Your task to perform on an android device: Open Wikipedia Image 0: 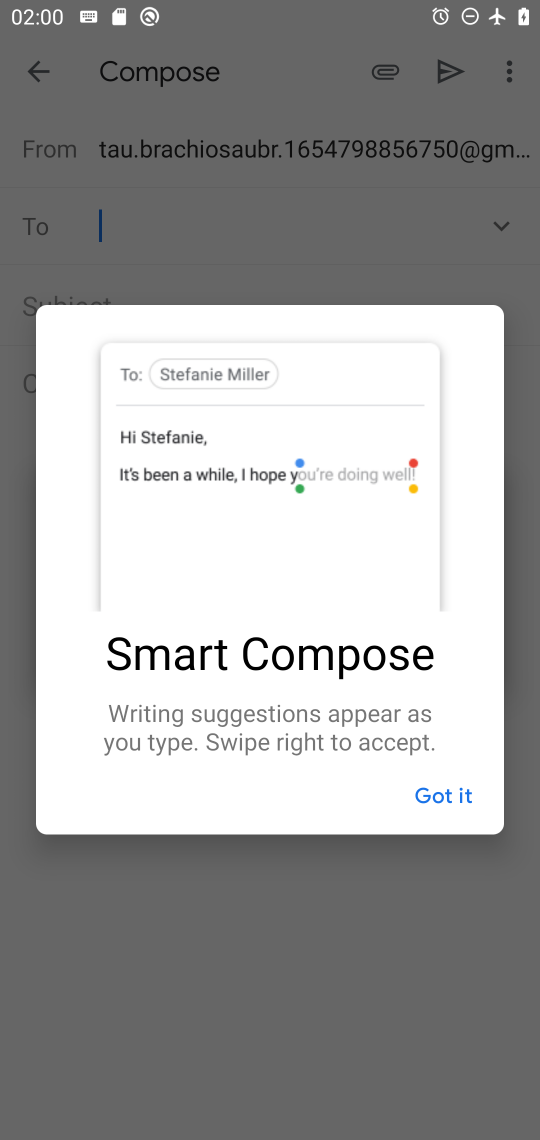
Step 0: press home button
Your task to perform on an android device: Open Wikipedia Image 1: 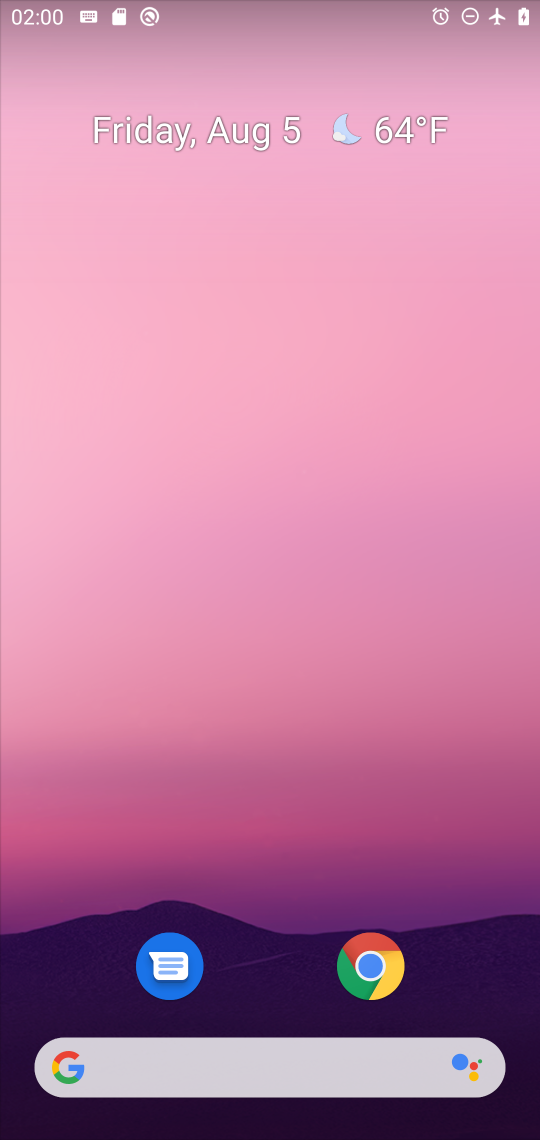
Step 1: click (379, 955)
Your task to perform on an android device: Open Wikipedia Image 2: 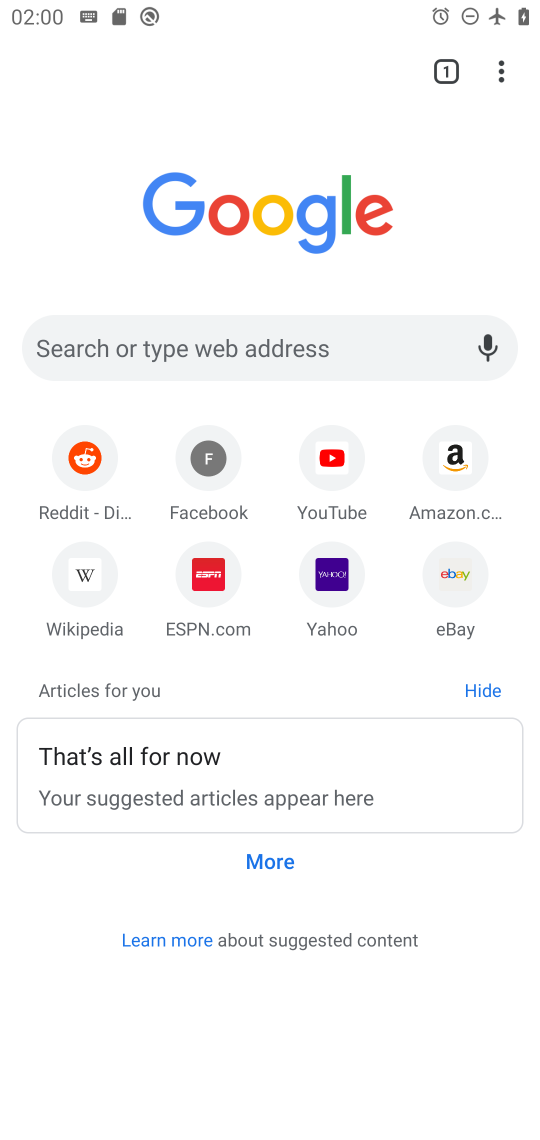
Step 2: click (78, 562)
Your task to perform on an android device: Open Wikipedia Image 3: 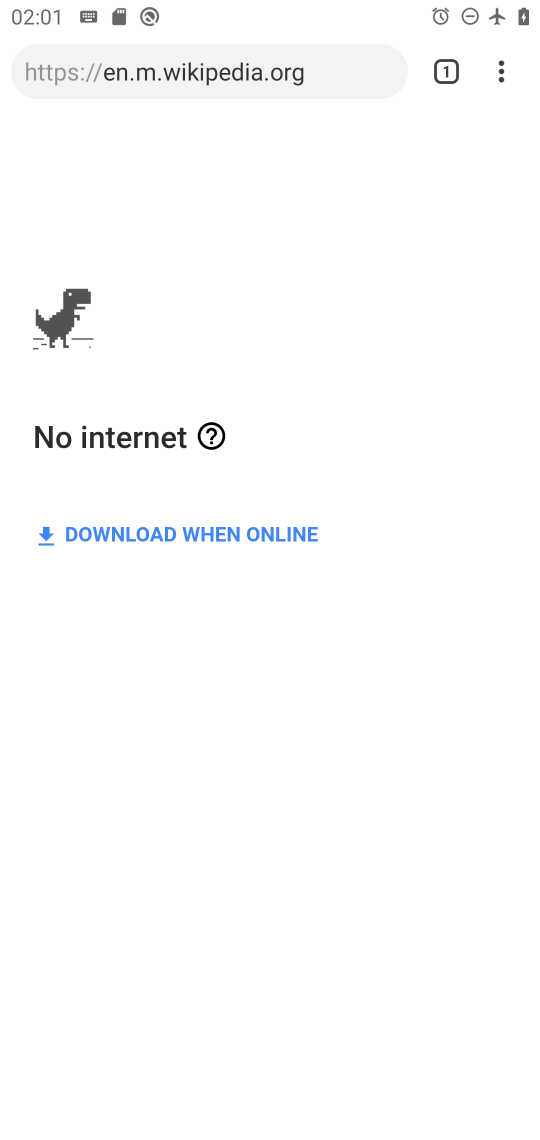
Step 3: task complete